Your task to perform on an android device: turn on location history Image 0: 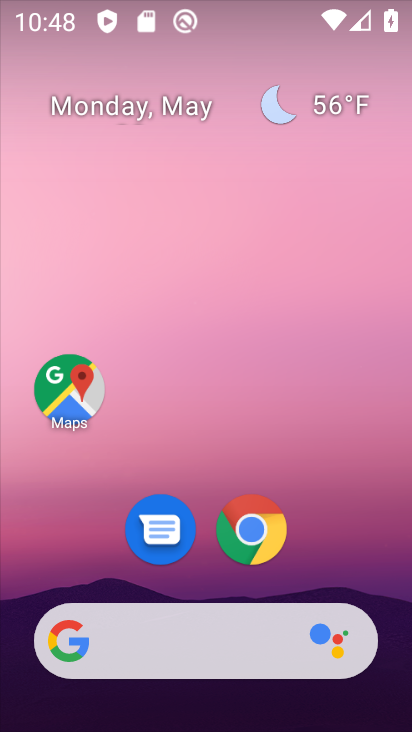
Step 0: drag from (336, 560) to (260, 58)
Your task to perform on an android device: turn on location history Image 1: 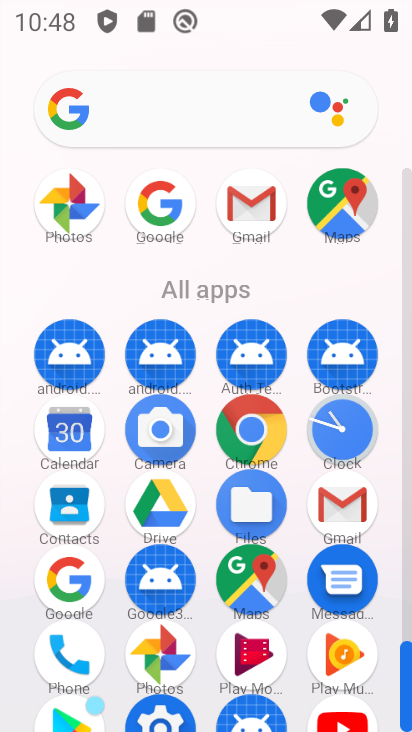
Step 1: drag from (197, 487) to (215, 301)
Your task to perform on an android device: turn on location history Image 2: 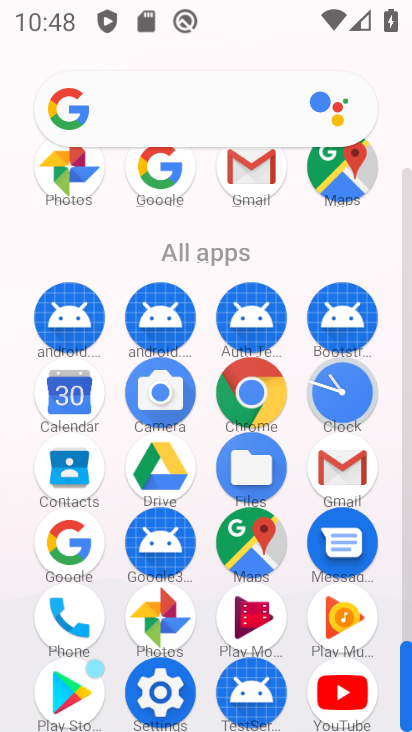
Step 2: click (161, 690)
Your task to perform on an android device: turn on location history Image 3: 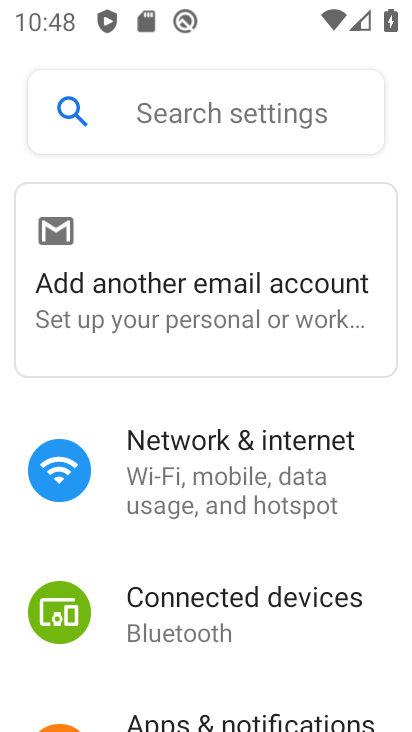
Step 3: drag from (169, 567) to (216, 428)
Your task to perform on an android device: turn on location history Image 4: 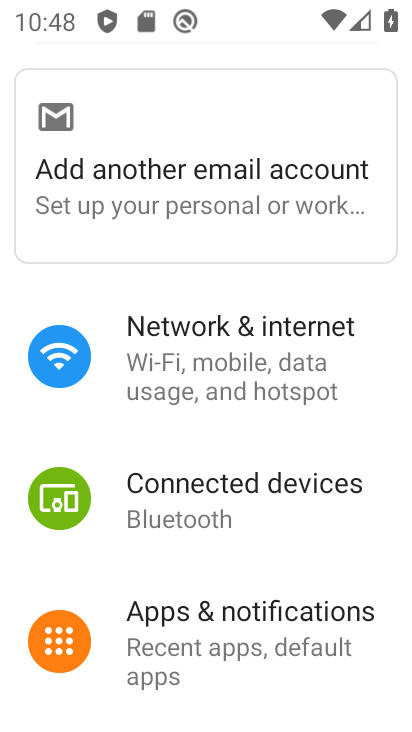
Step 4: drag from (160, 551) to (216, 417)
Your task to perform on an android device: turn on location history Image 5: 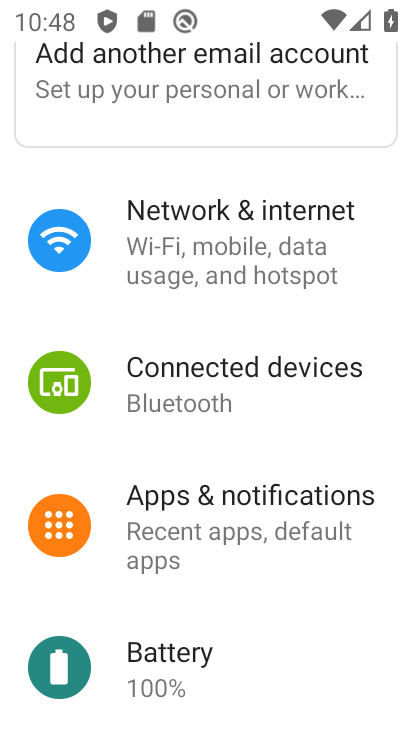
Step 5: drag from (160, 606) to (213, 446)
Your task to perform on an android device: turn on location history Image 6: 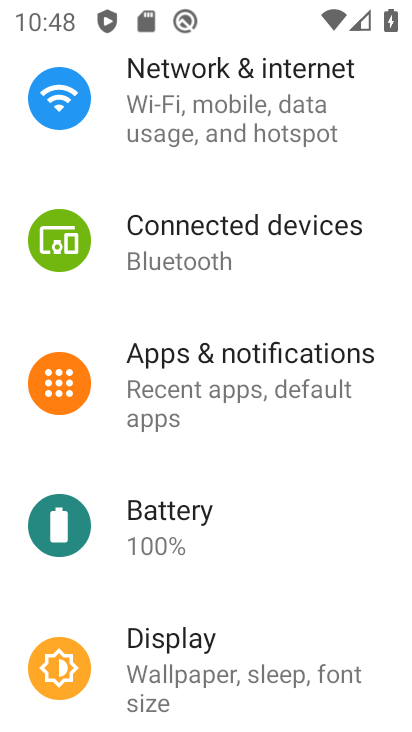
Step 6: drag from (140, 586) to (210, 467)
Your task to perform on an android device: turn on location history Image 7: 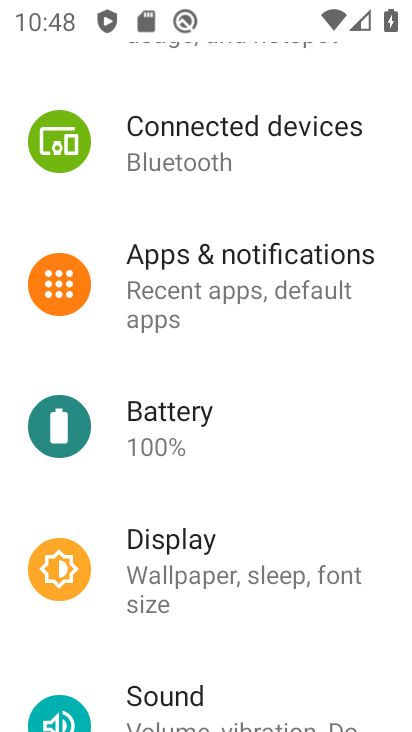
Step 7: drag from (152, 638) to (213, 513)
Your task to perform on an android device: turn on location history Image 8: 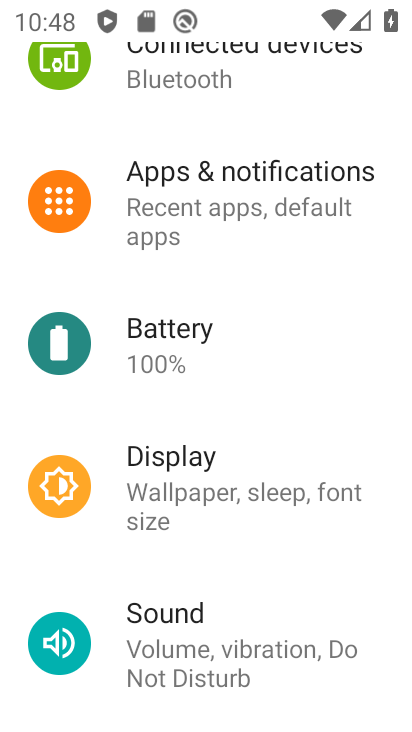
Step 8: drag from (144, 688) to (209, 517)
Your task to perform on an android device: turn on location history Image 9: 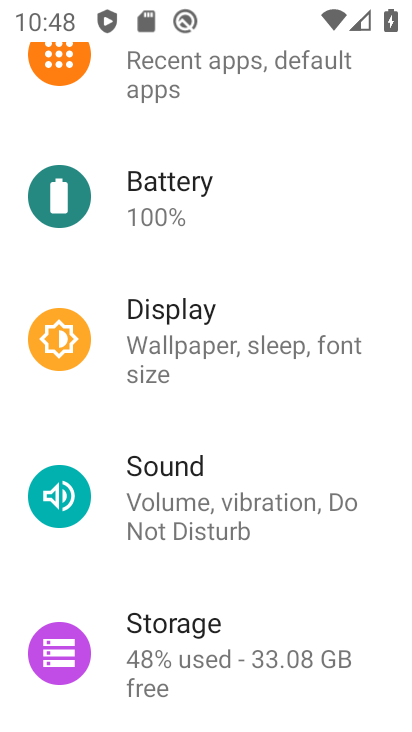
Step 9: drag from (166, 580) to (232, 453)
Your task to perform on an android device: turn on location history Image 10: 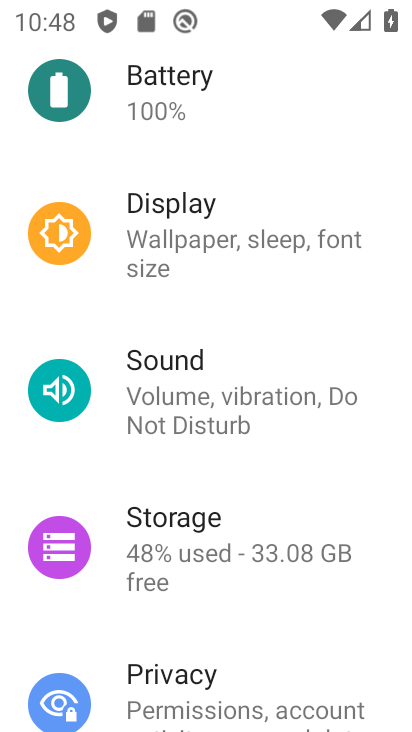
Step 10: drag from (148, 623) to (260, 463)
Your task to perform on an android device: turn on location history Image 11: 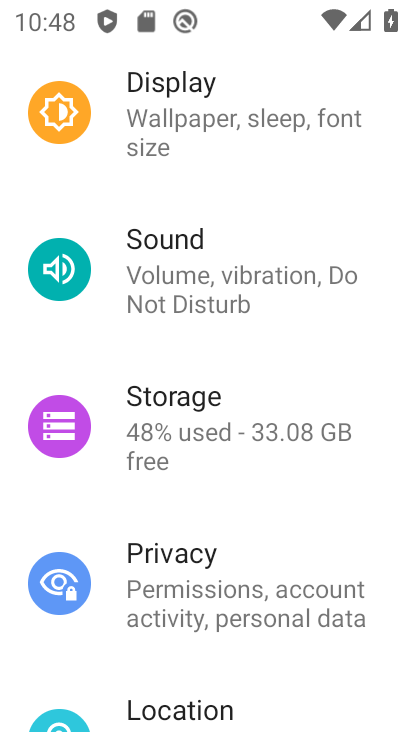
Step 11: drag from (168, 648) to (258, 504)
Your task to perform on an android device: turn on location history Image 12: 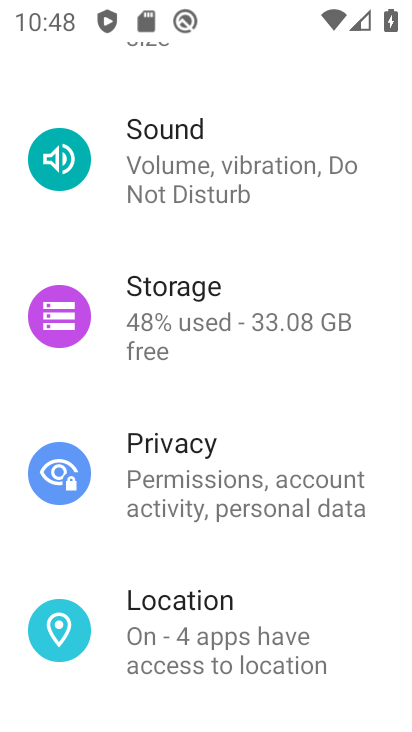
Step 12: click (195, 599)
Your task to perform on an android device: turn on location history Image 13: 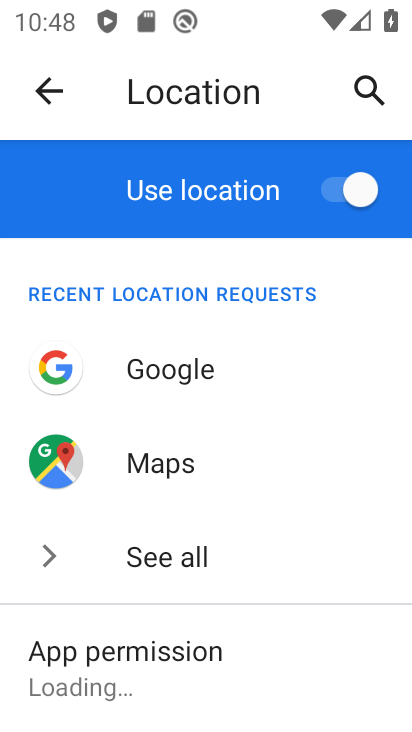
Step 13: drag from (241, 632) to (327, 473)
Your task to perform on an android device: turn on location history Image 14: 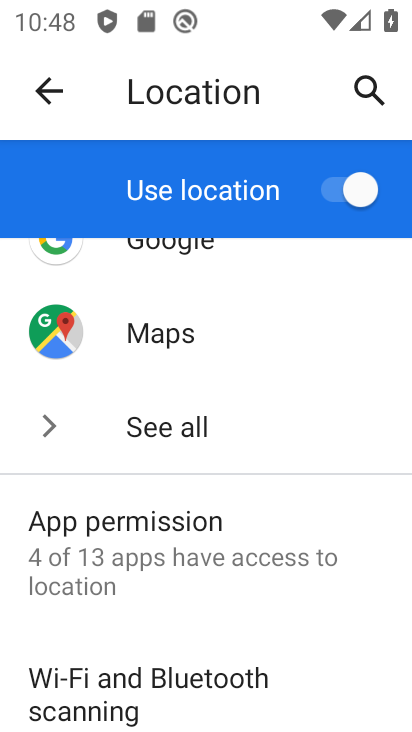
Step 14: drag from (203, 627) to (276, 478)
Your task to perform on an android device: turn on location history Image 15: 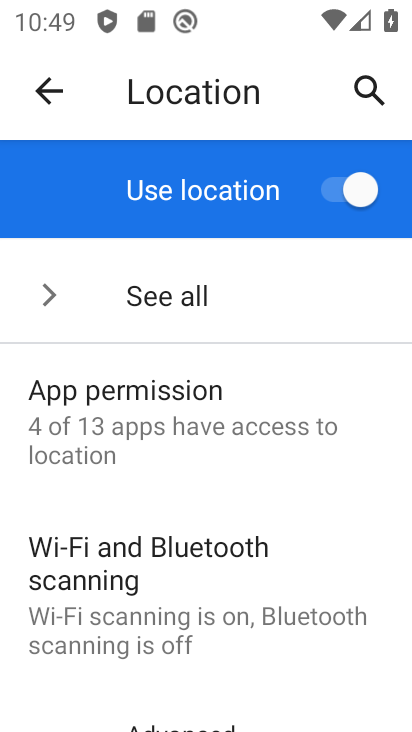
Step 15: drag from (183, 664) to (282, 502)
Your task to perform on an android device: turn on location history Image 16: 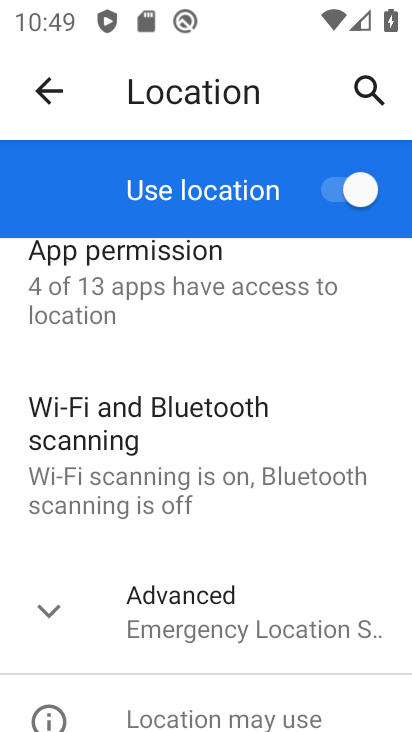
Step 16: click (231, 628)
Your task to perform on an android device: turn on location history Image 17: 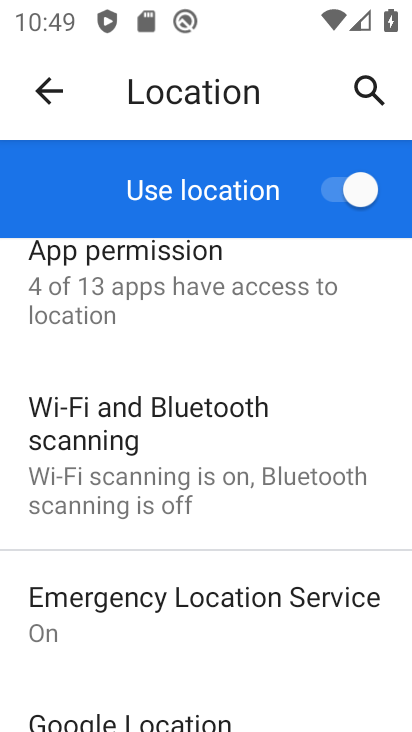
Step 17: drag from (198, 645) to (277, 527)
Your task to perform on an android device: turn on location history Image 18: 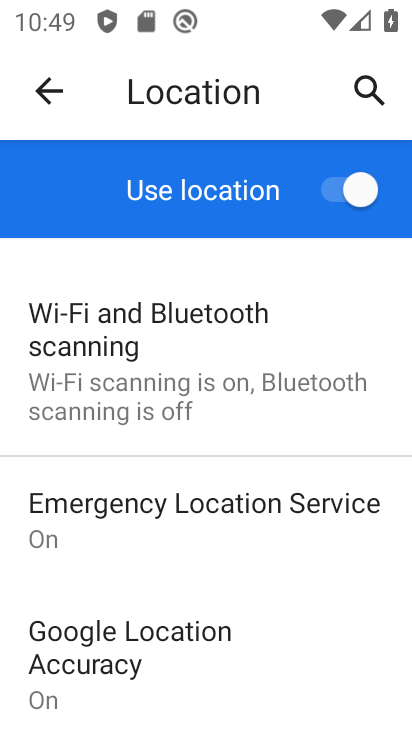
Step 18: drag from (196, 603) to (312, 470)
Your task to perform on an android device: turn on location history Image 19: 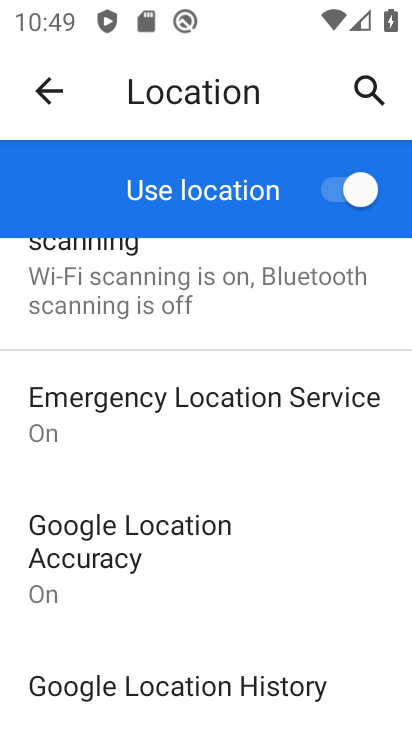
Step 19: drag from (204, 593) to (335, 437)
Your task to perform on an android device: turn on location history Image 20: 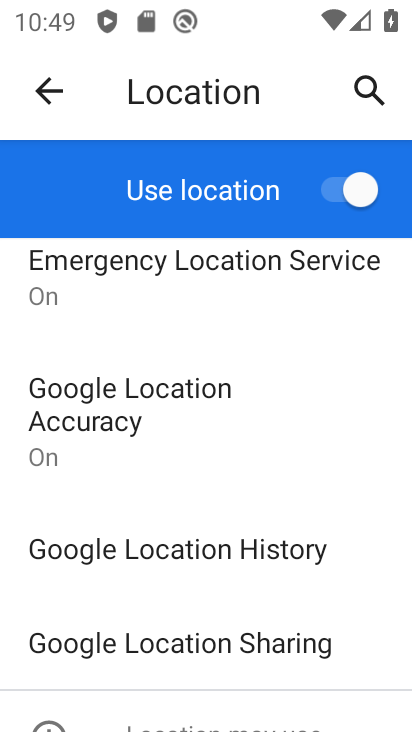
Step 20: drag from (208, 590) to (311, 437)
Your task to perform on an android device: turn on location history Image 21: 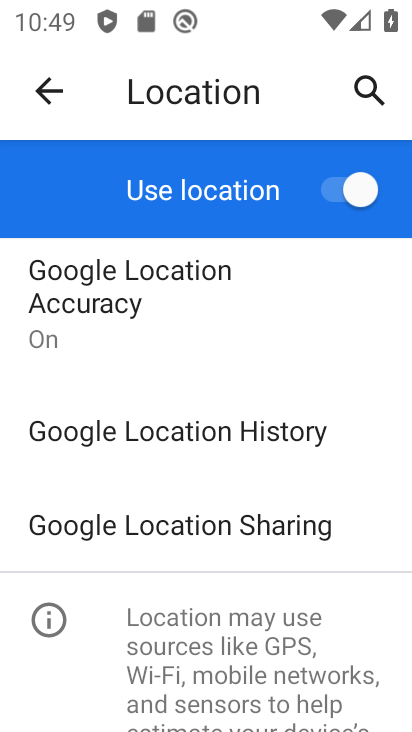
Step 21: click (311, 437)
Your task to perform on an android device: turn on location history Image 22: 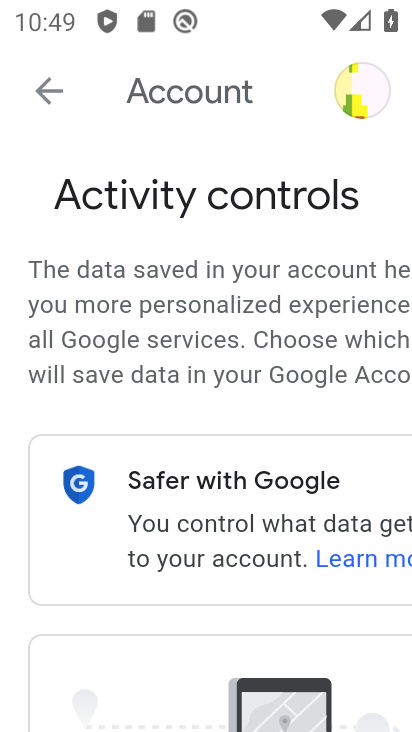
Step 22: drag from (120, 639) to (223, 447)
Your task to perform on an android device: turn on location history Image 23: 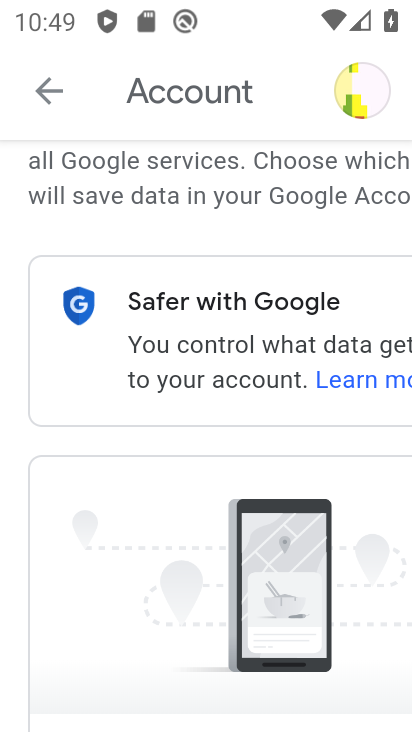
Step 23: drag from (149, 644) to (227, 485)
Your task to perform on an android device: turn on location history Image 24: 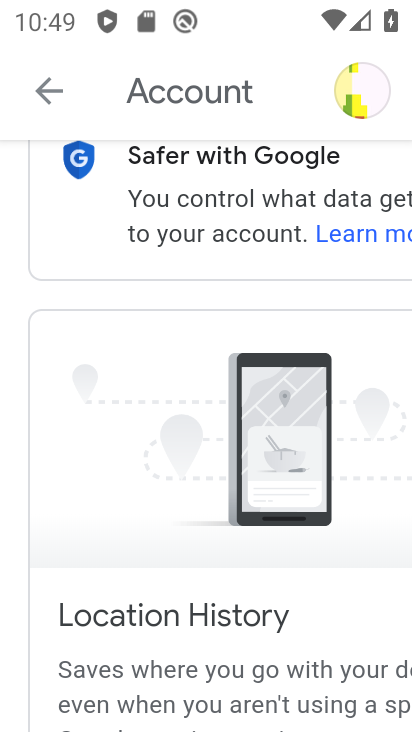
Step 24: drag from (171, 660) to (236, 518)
Your task to perform on an android device: turn on location history Image 25: 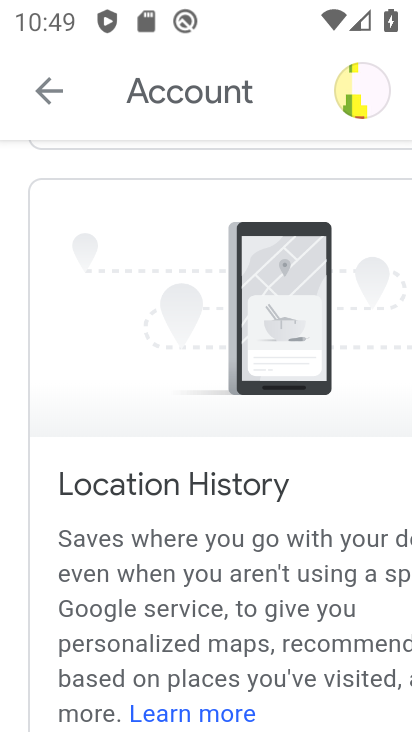
Step 25: drag from (172, 682) to (261, 538)
Your task to perform on an android device: turn on location history Image 26: 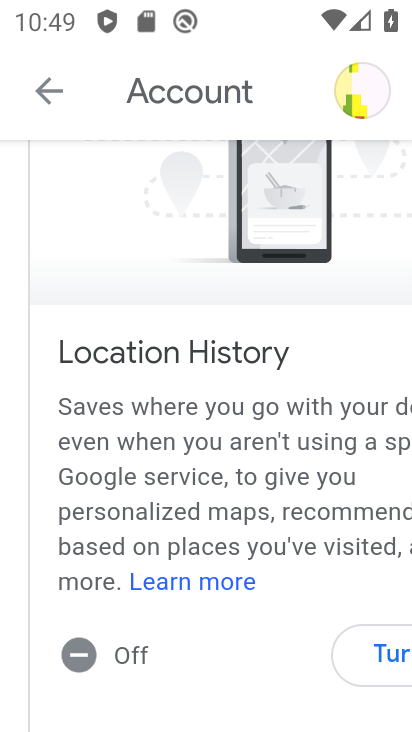
Step 26: click (388, 653)
Your task to perform on an android device: turn on location history Image 27: 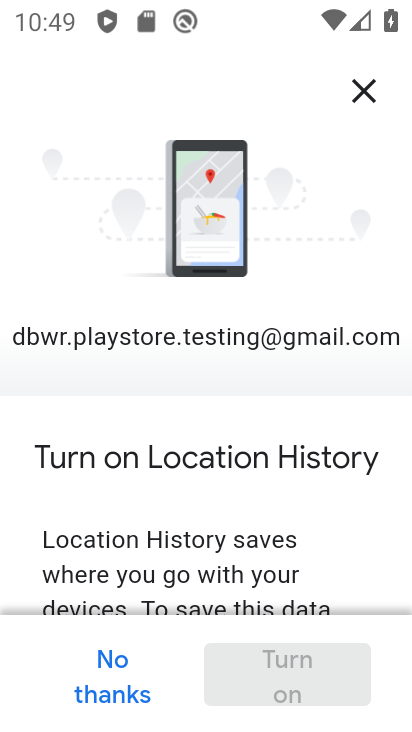
Step 27: drag from (214, 560) to (290, 442)
Your task to perform on an android device: turn on location history Image 28: 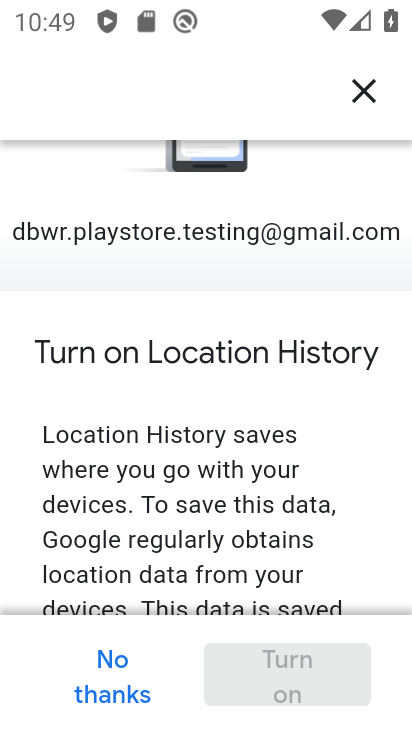
Step 28: drag from (223, 576) to (298, 468)
Your task to perform on an android device: turn on location history Image 29: 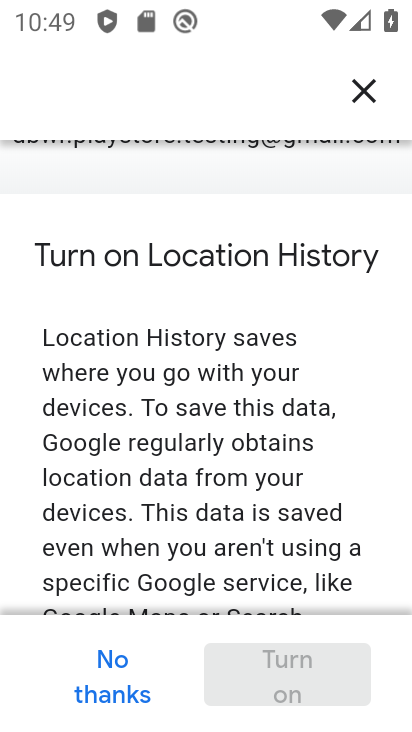
Step 29: drag from (238, 588) to (316, 470)
Your task to perform on an android device: turn on location history Image 30: 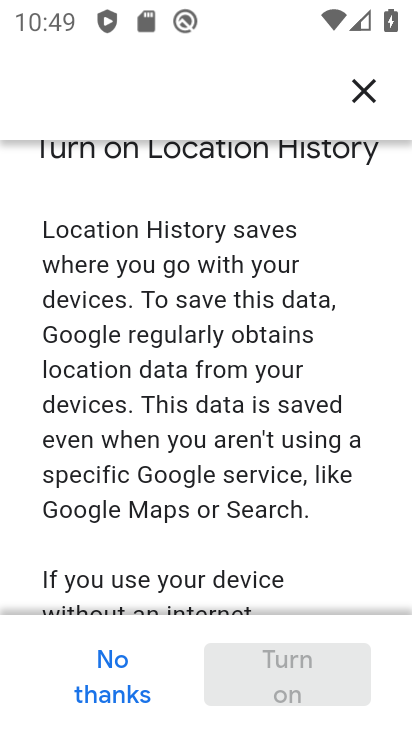
Step 30: drag from (266, 563) to (327, 452)
Your task to perform on an android device: turn on location history Image 31: 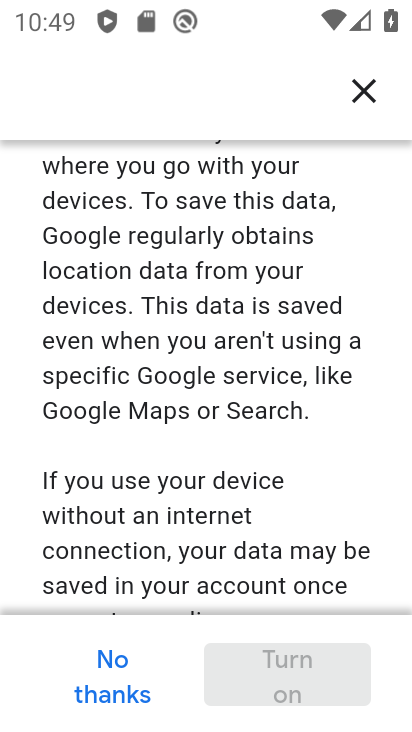
Step 31: drag from (262, 555) to (362, 418)
Your task to perform on an android device: turn on location history Image 32: 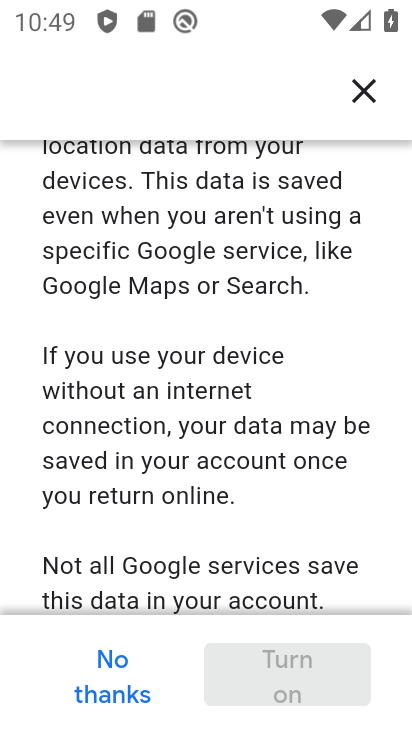
Step 32: drag from (245, 576) to (315, 460)
Your task to perform on an android device: turn on location history Image 33: 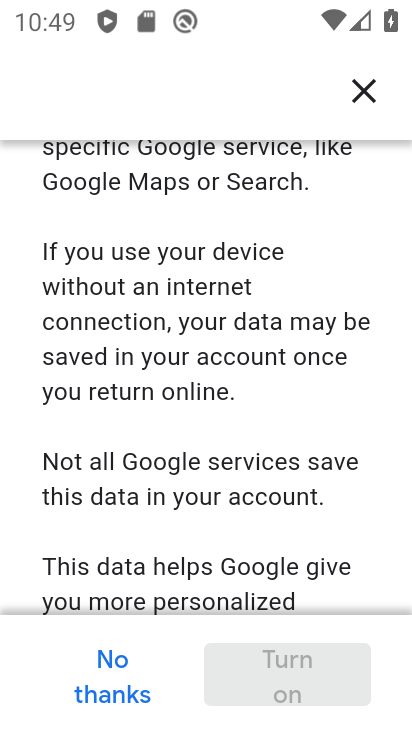
Step 33: drag from (208, 595) to (316, 464)
Your task to perform on an android device: turn on location history Image 34: 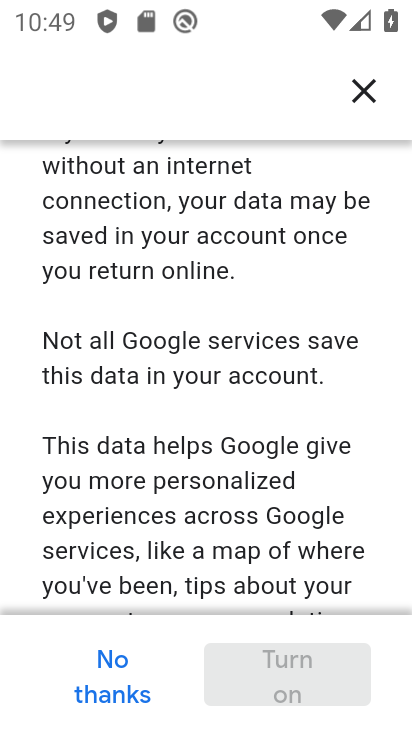
Step 34: drag from (245, 573) to (320, 460)
Your task to perform on an android device: turn on location history Image 35: 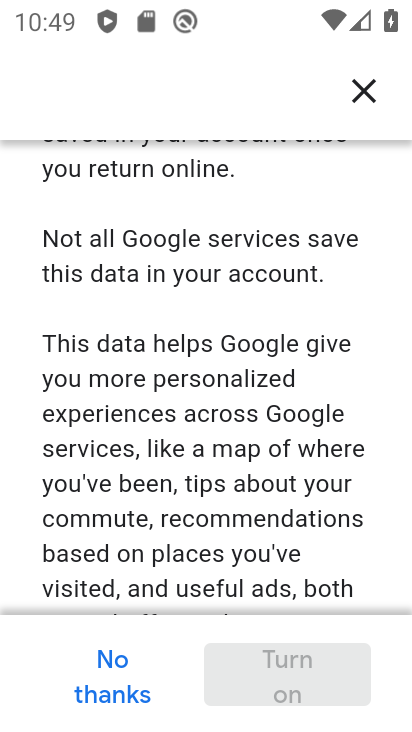
Step 35: drag from (238, 578) to (327, 479)
Your task to perform on an android device: turn on location history Image 36: 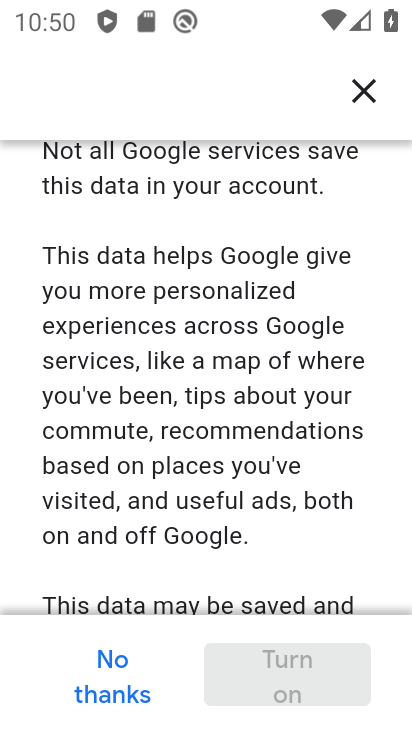
Step 36: drag from (264, 578) to (320, 435)
Your task to perform on an android device: turn on location history Image 37: 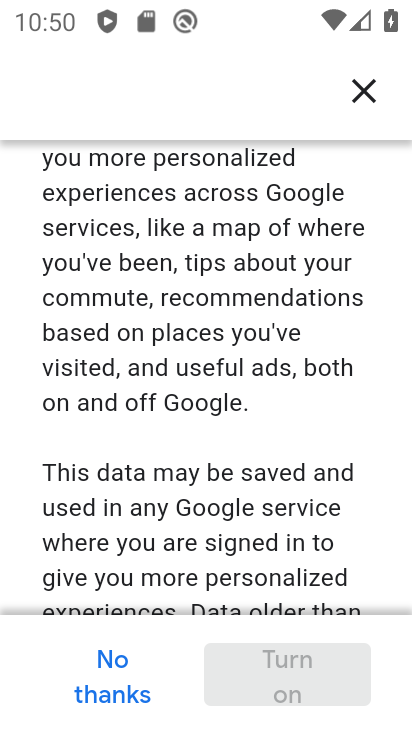
Step 37: drag from (258, 557) to (314, 404)
Your task to perform on an android device: turn on location history Image 38: 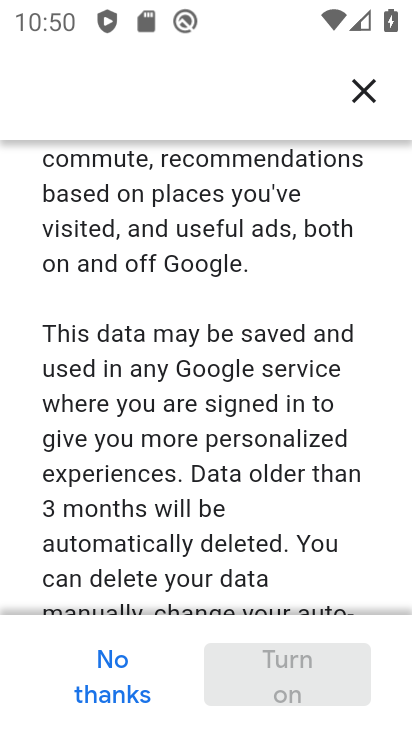
Step 38: drag from (234, 578) to (311, 472)
Your task to perform on an android device: turn on location history Image 39: 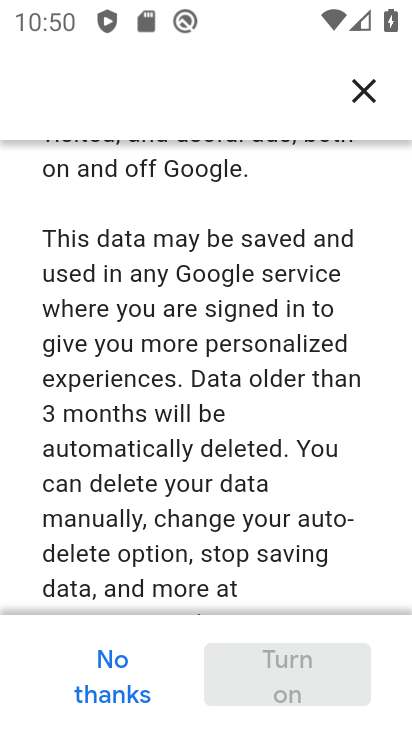
Step 39: drag from (244, 598) to (336, 488)
Your task to perform on an android device: turn on location history Image 40: 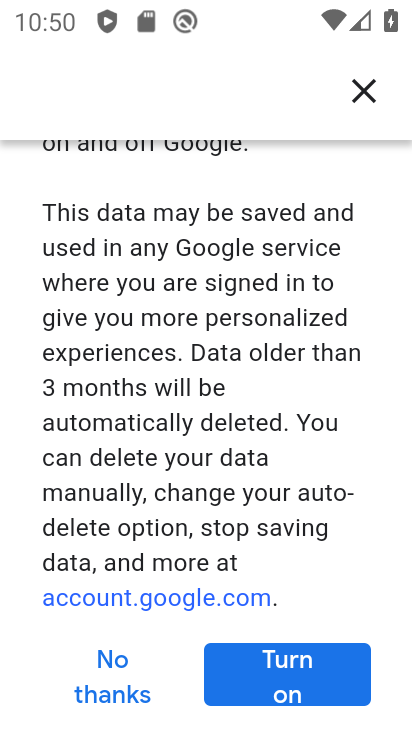
Step 40: click (300, 687)
Your task to perform on an android device: turn on location history Image 41: 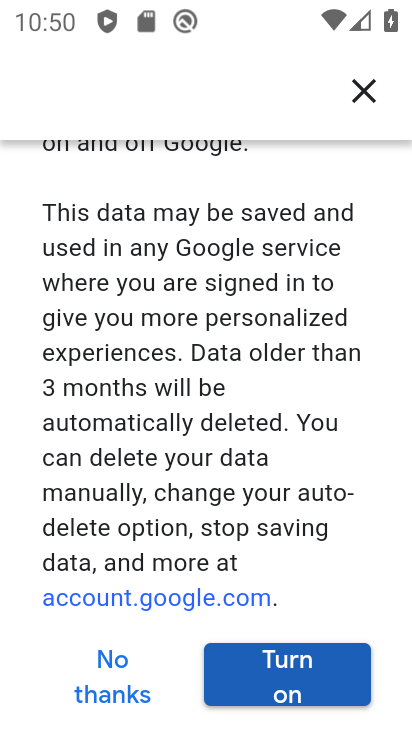
Step 41: click (300, 687)
Your task to perform on an android device: turn on location history Image 42: 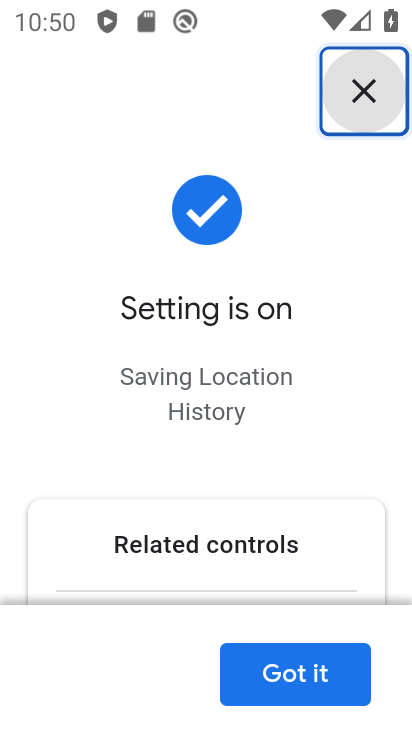
Step 42: click (299, 686)
Your task to perform on an android device: turn on location history Image 43: 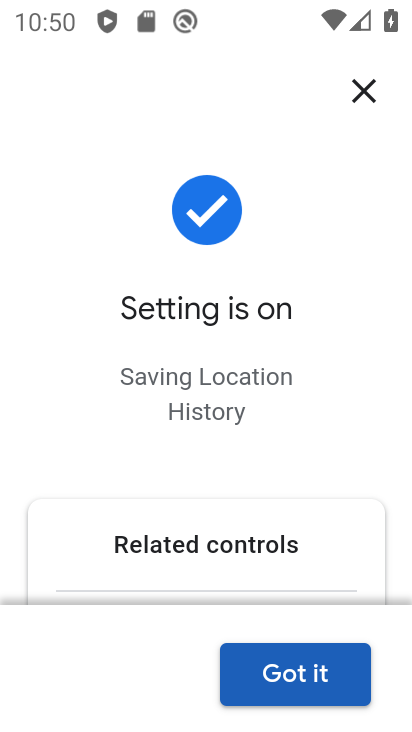
Step 43: click (286, 681)
Your task to perform on an android device: turn on location history Image 44: 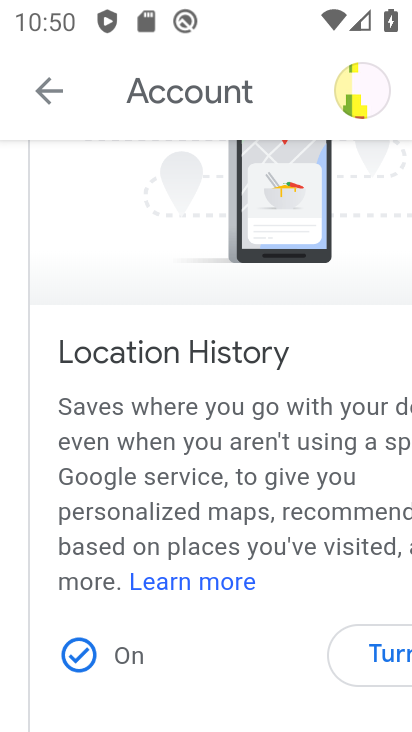
Step 44: task complete